Your task to perform on an android device: open app "Google Photos" Image 0: 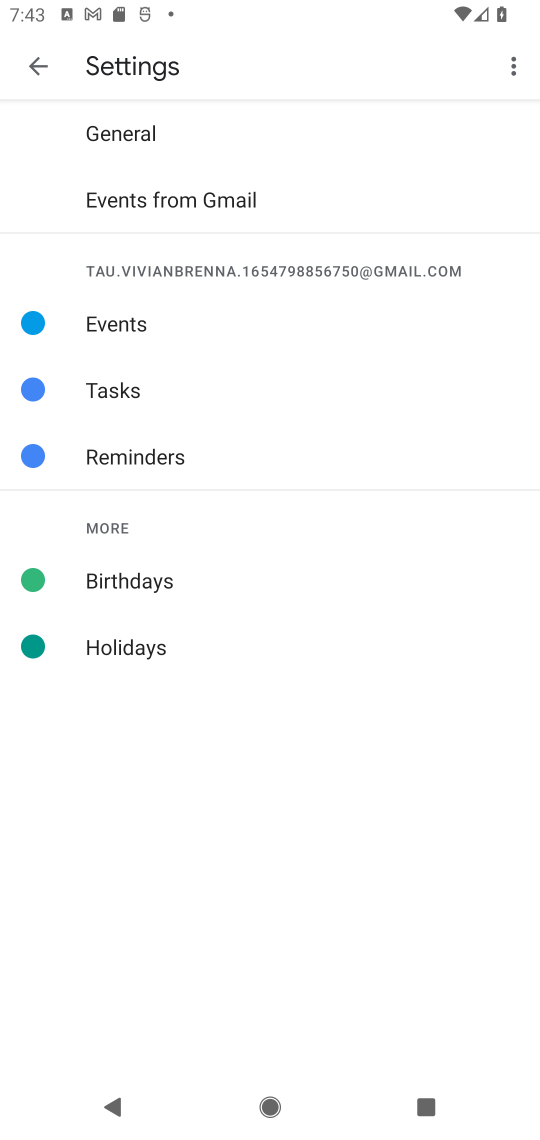
Step 0: press back button
Your task to perform on an android device: open app "Google Photos" Image 1: 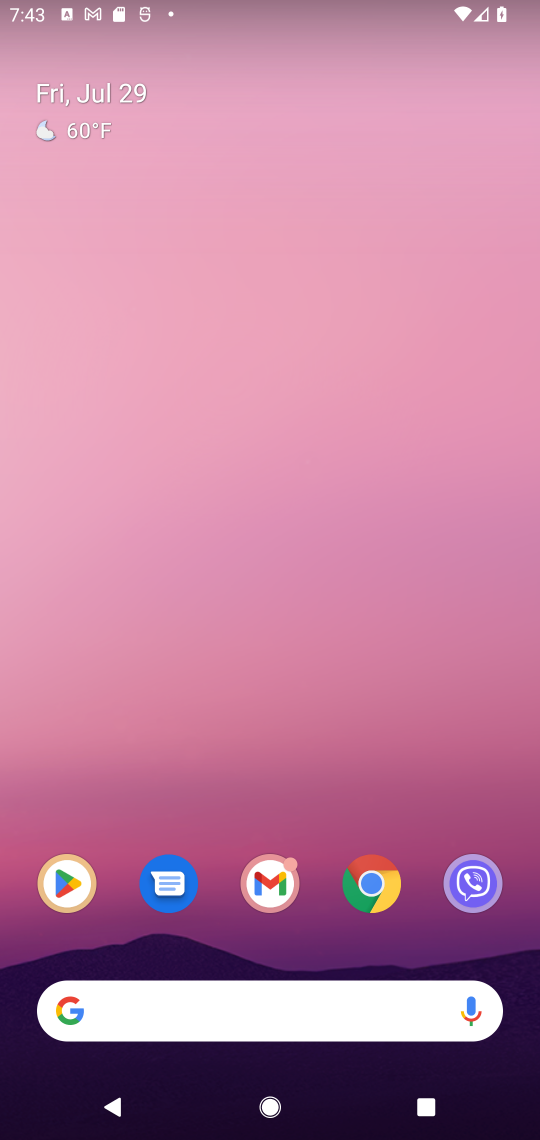
Step 1: click (43, 881)
Your task to perform on an android device: open app "Google Photos" Image 2: 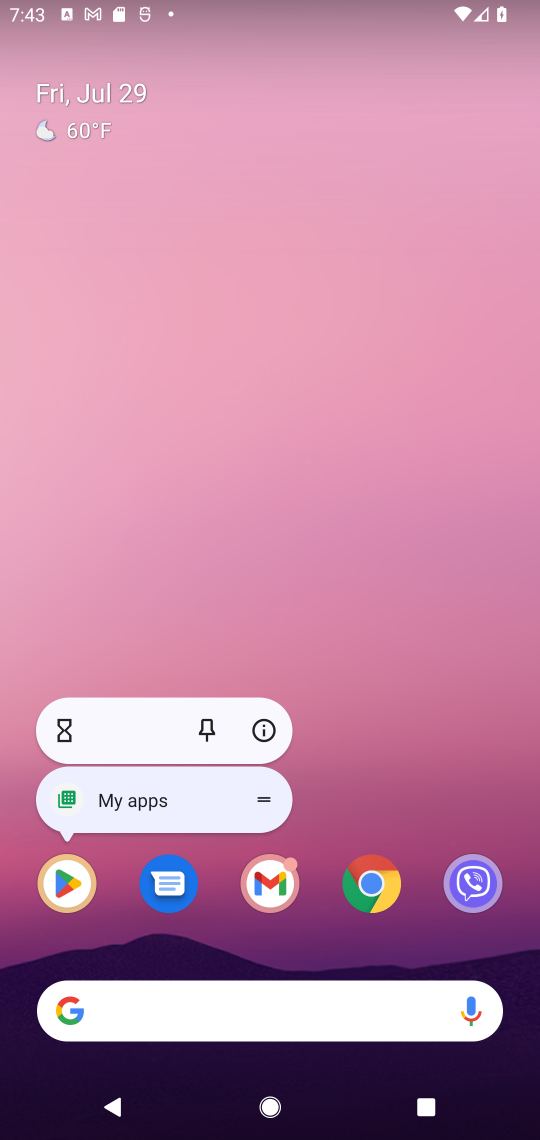
Step 2: click (64, 884)
Your task to perform on an android device: open app "Google Photos" Image 3: 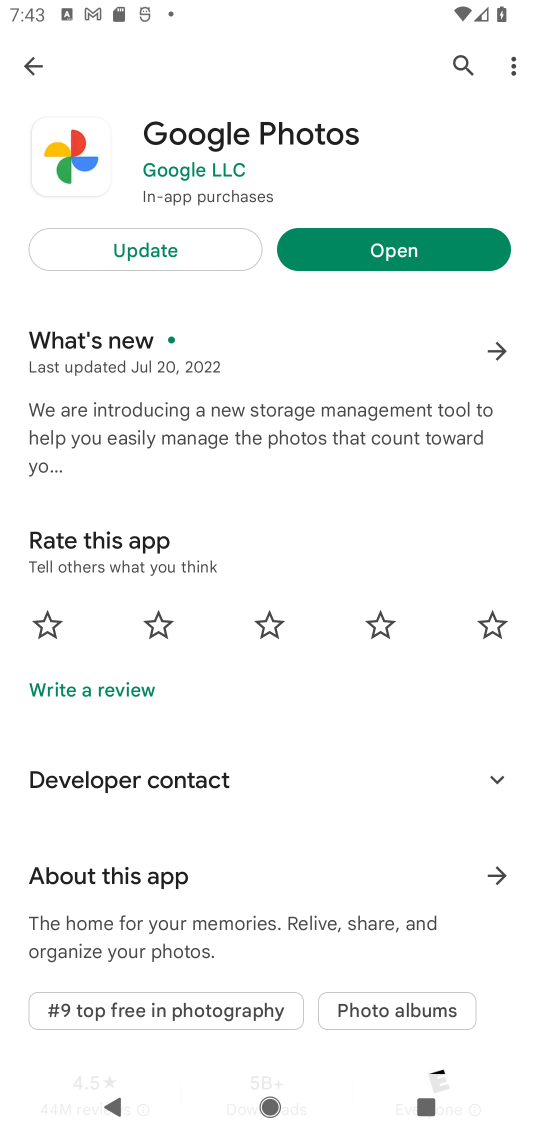
Step 3: click (383, 236)
Your task to perform on an android device: open app "Google Photos" Image 4: 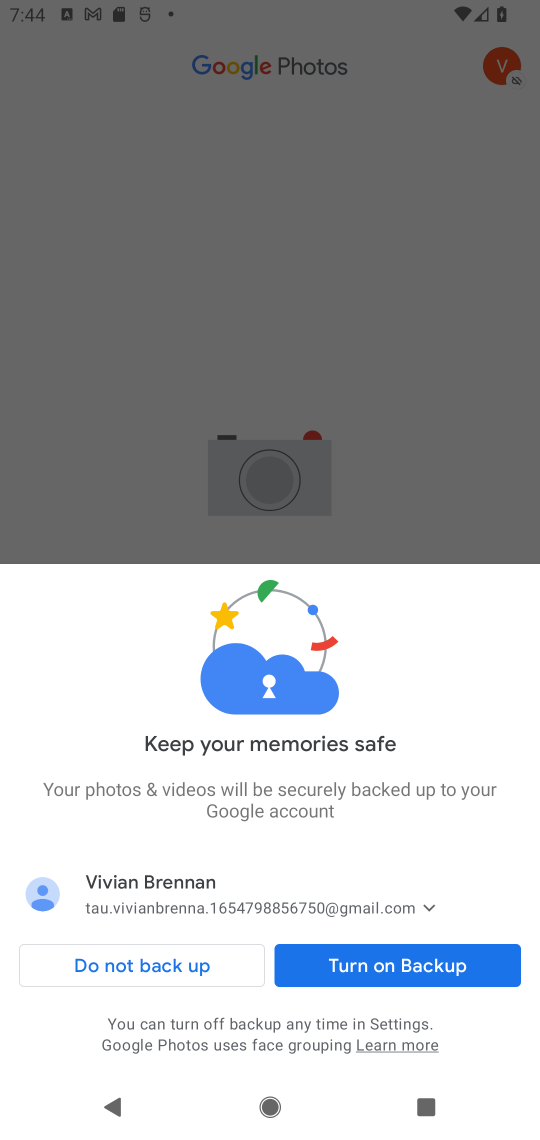
Step 4: task complete